Your task to perform on an android device: open app "Facebook Messenger" (install if not already installed) and enter user name: "divorce@inbox.com" and password: "caviar" Image 0: 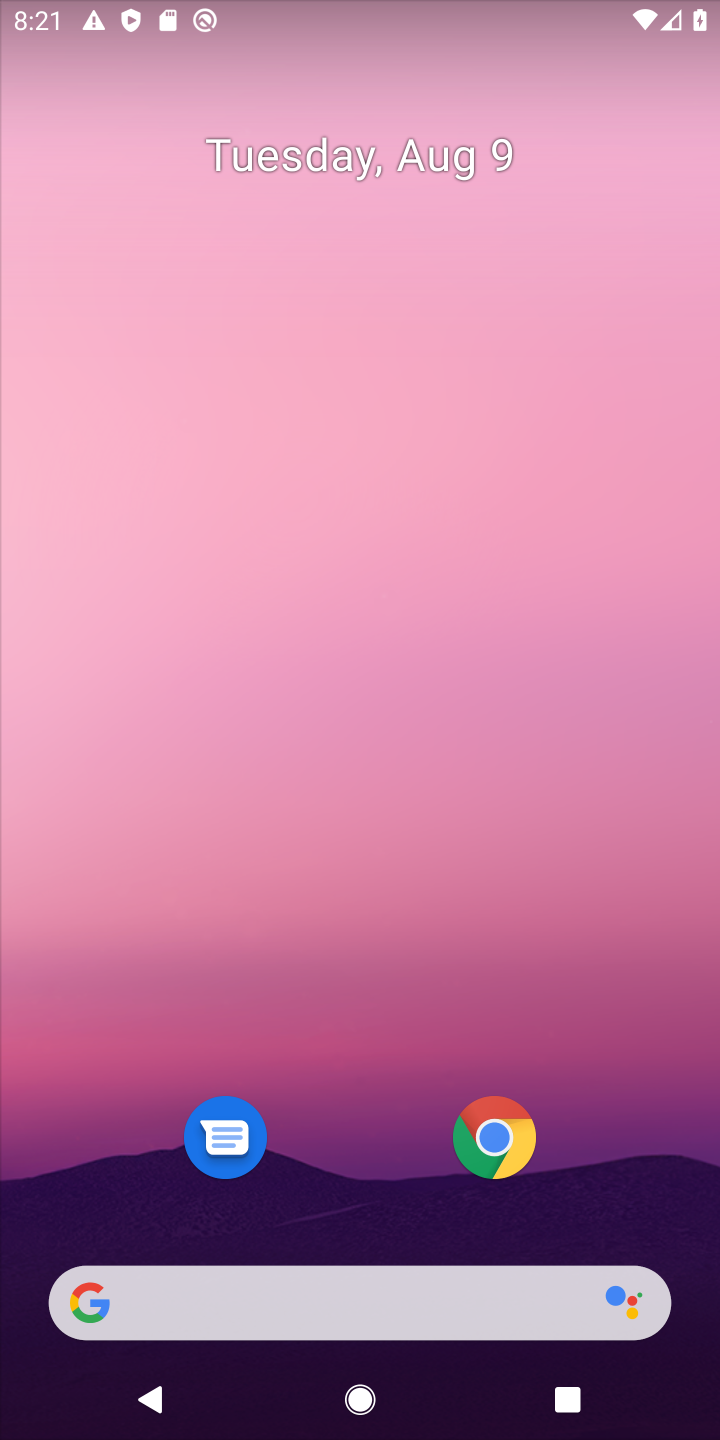
Step 0: drag from (587, 1198) to (588, 183)
Your task to perform on an android device: open app "Facebook Messenger" (install if not already installed) and enter user name: "divorce@inbox.com" and password: "caviar" Image 1: 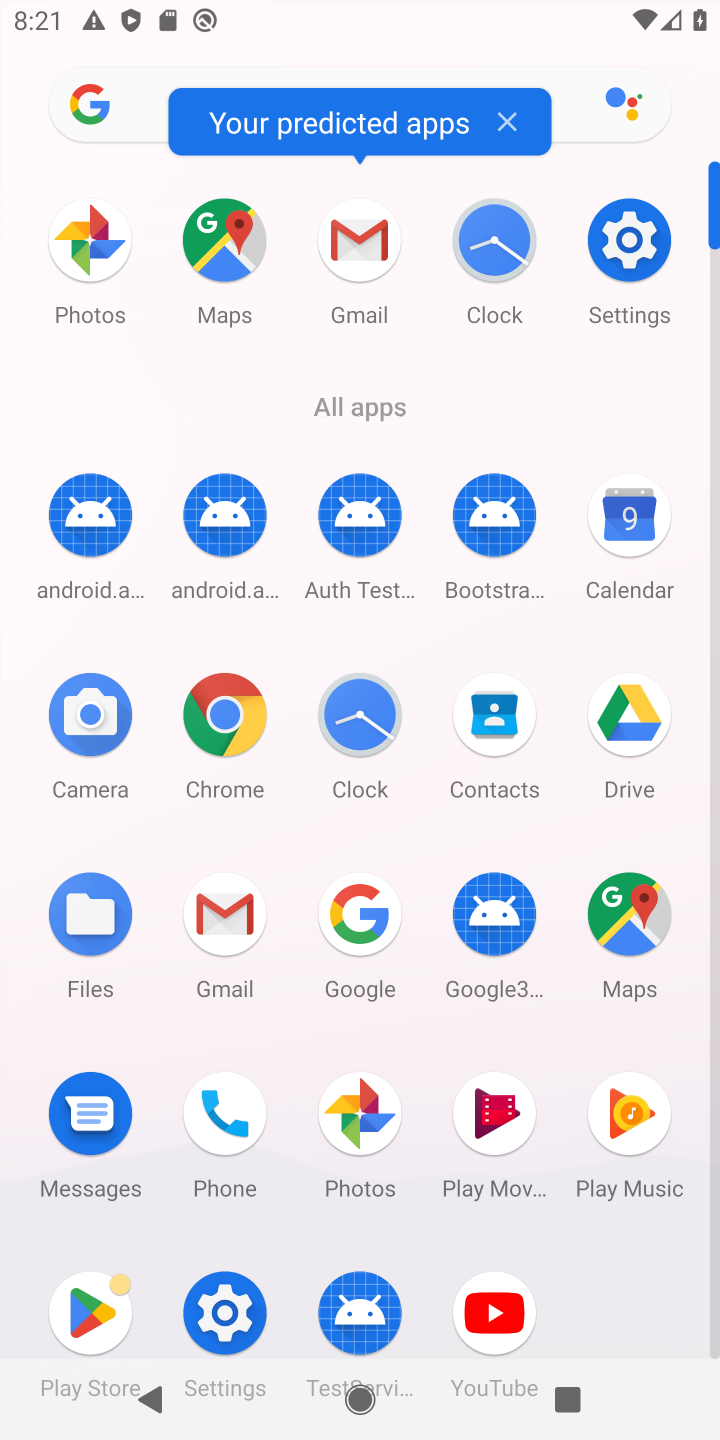
Step 1: drag from (573, 1234) to (583, 763)
Your task to perform on an android device: open app "Facebook Messenger" (install if not already installed) and enter user name: "divorce@inbox.com" and password: "caviar" Image 2: 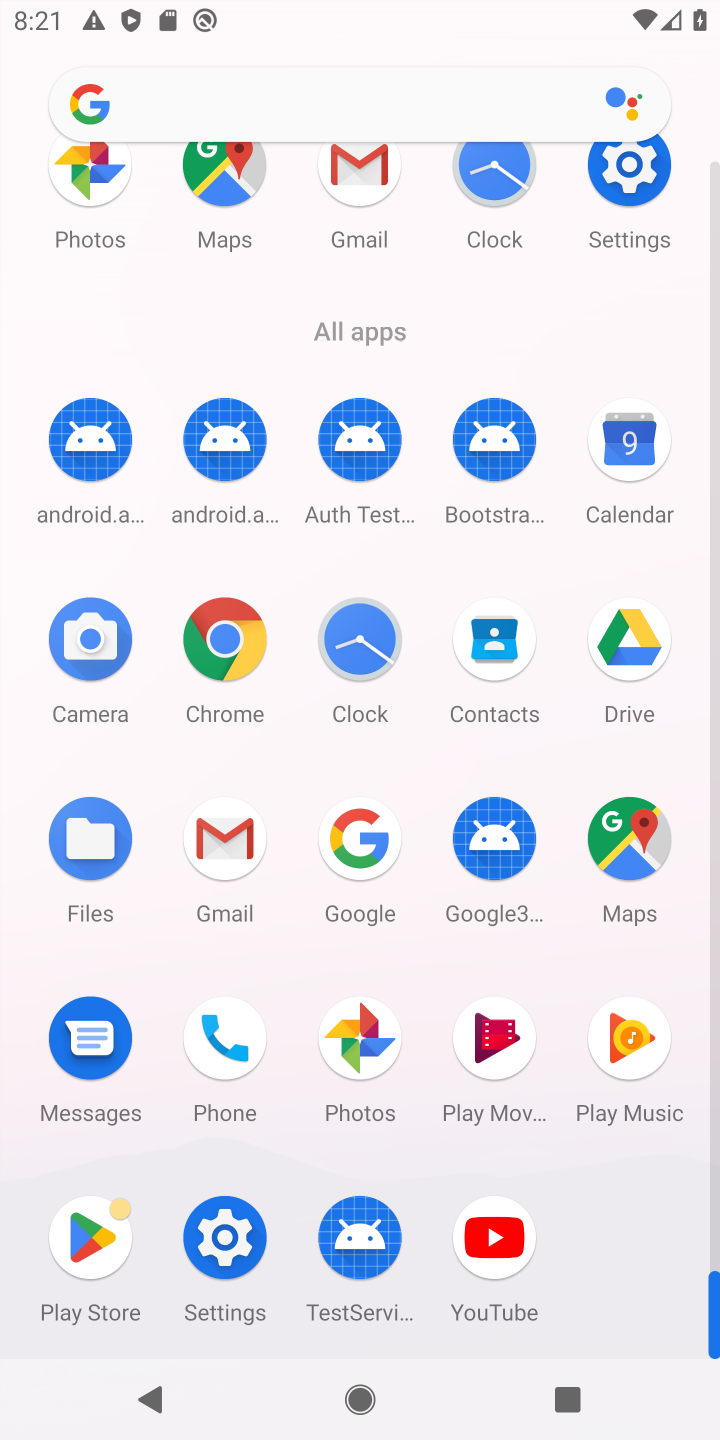
Step 2: click (84, 1247)
Your task to perform on an android device: open app "Facebook Messenger" (install if not already installed) and enter user name: "divorce@inbox.com" and password: "caviar" Image 3: 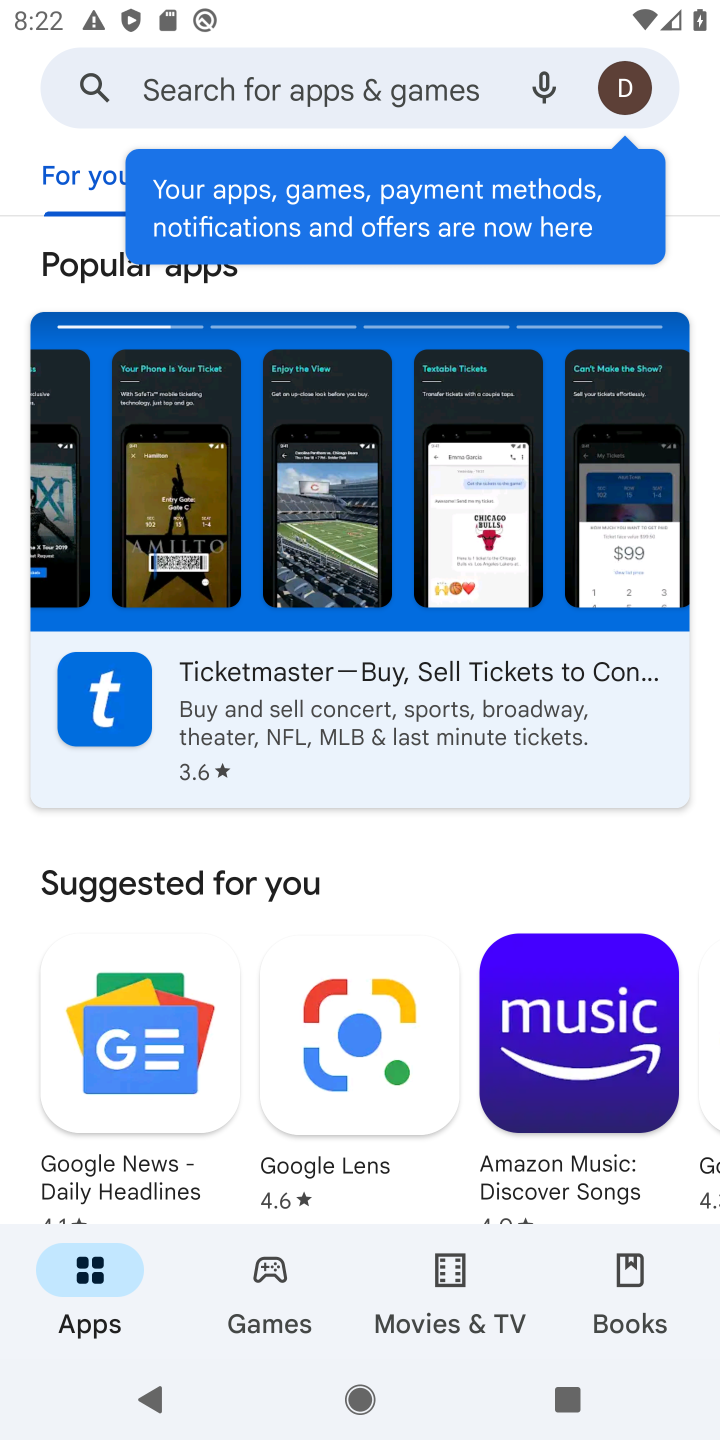
Step 3: click (294, 100)
Your task to perform on an android device: open app "Facebook Messenger" (install if not already installed) and enter user name: "divorce@inbox.com" and password: "caviar" Image 4: 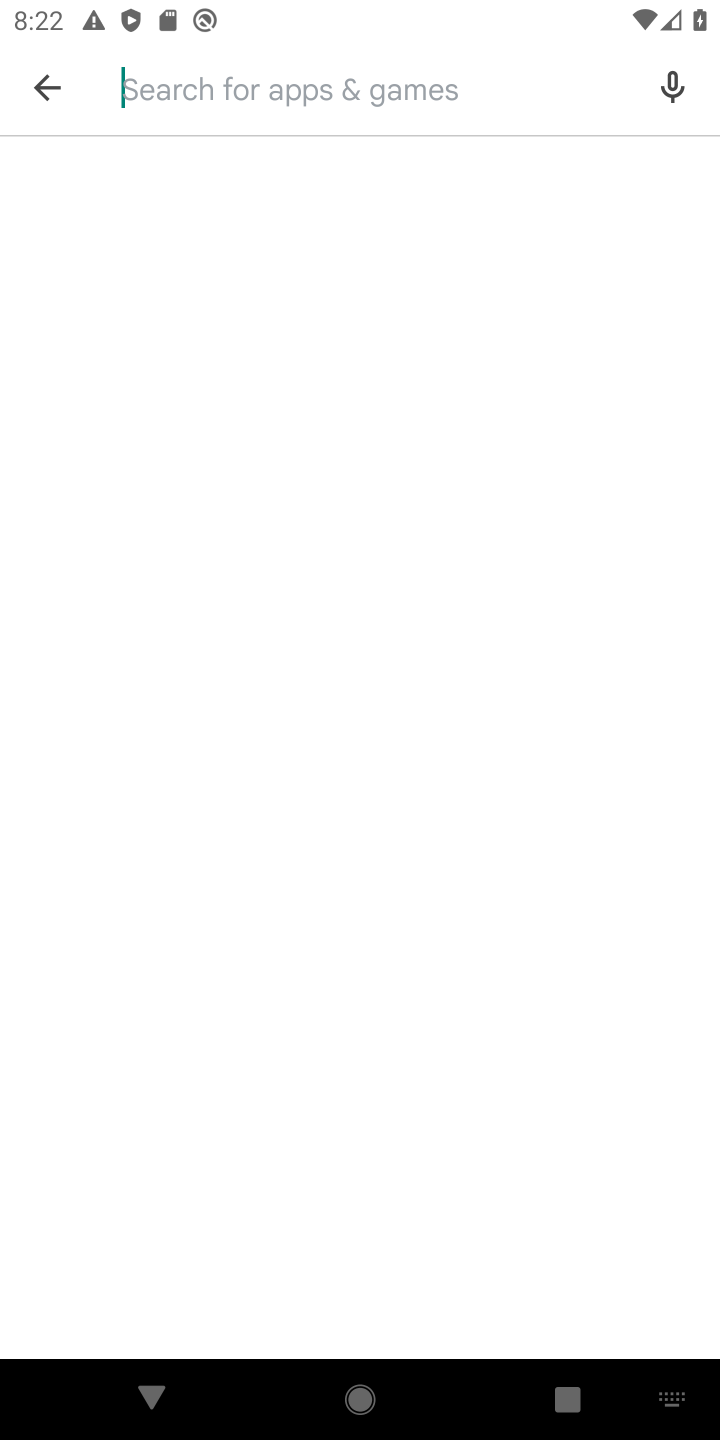
Step 4: type "facebook"
Your task to perform on an android device: open app "Facebook Messenger" (install if not already installed) and enter user name: "divorce@inbox.com" and password: "caviar" Image 5: 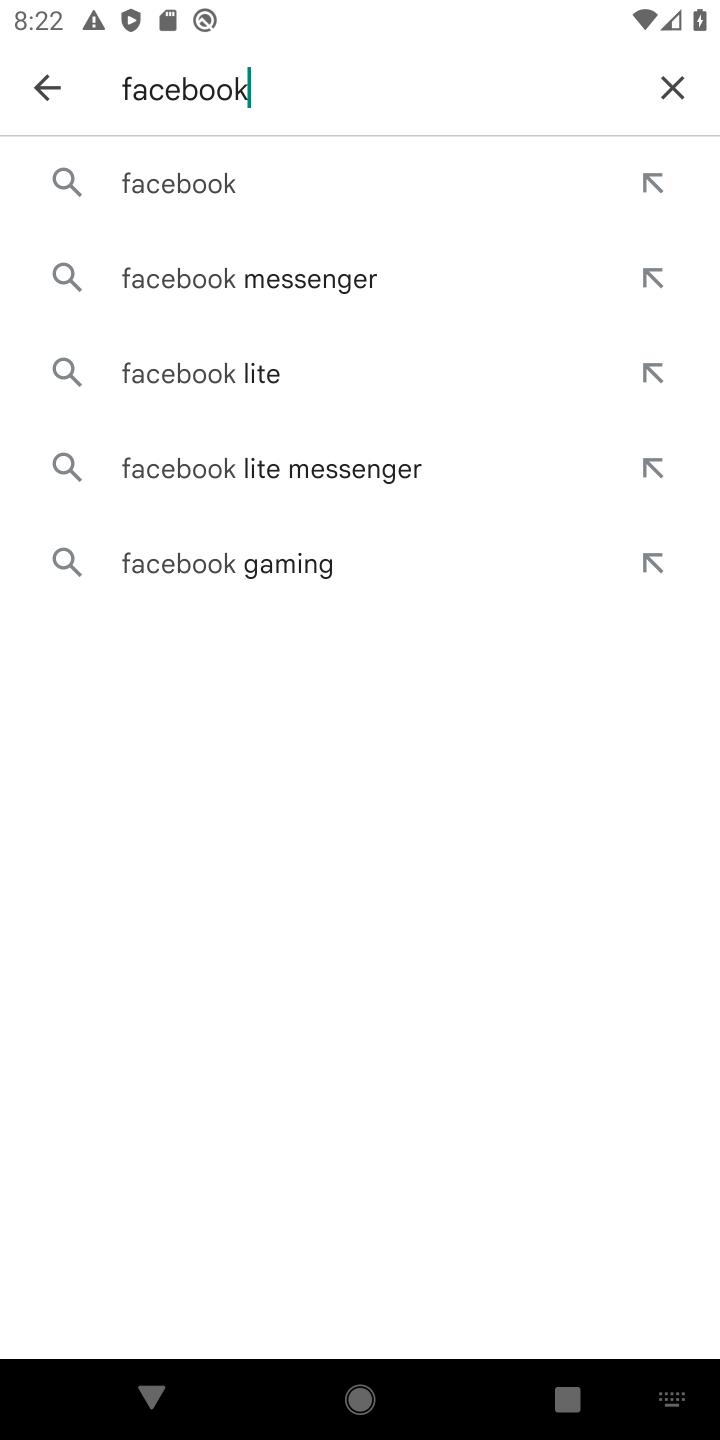
Step 5: click (351, 274)
Your task to perform on an android device: open app "Facebook Messenger" (install if not already installed) and enter user name: "divorce@inbox.com" and password: "caviar" Image 6: 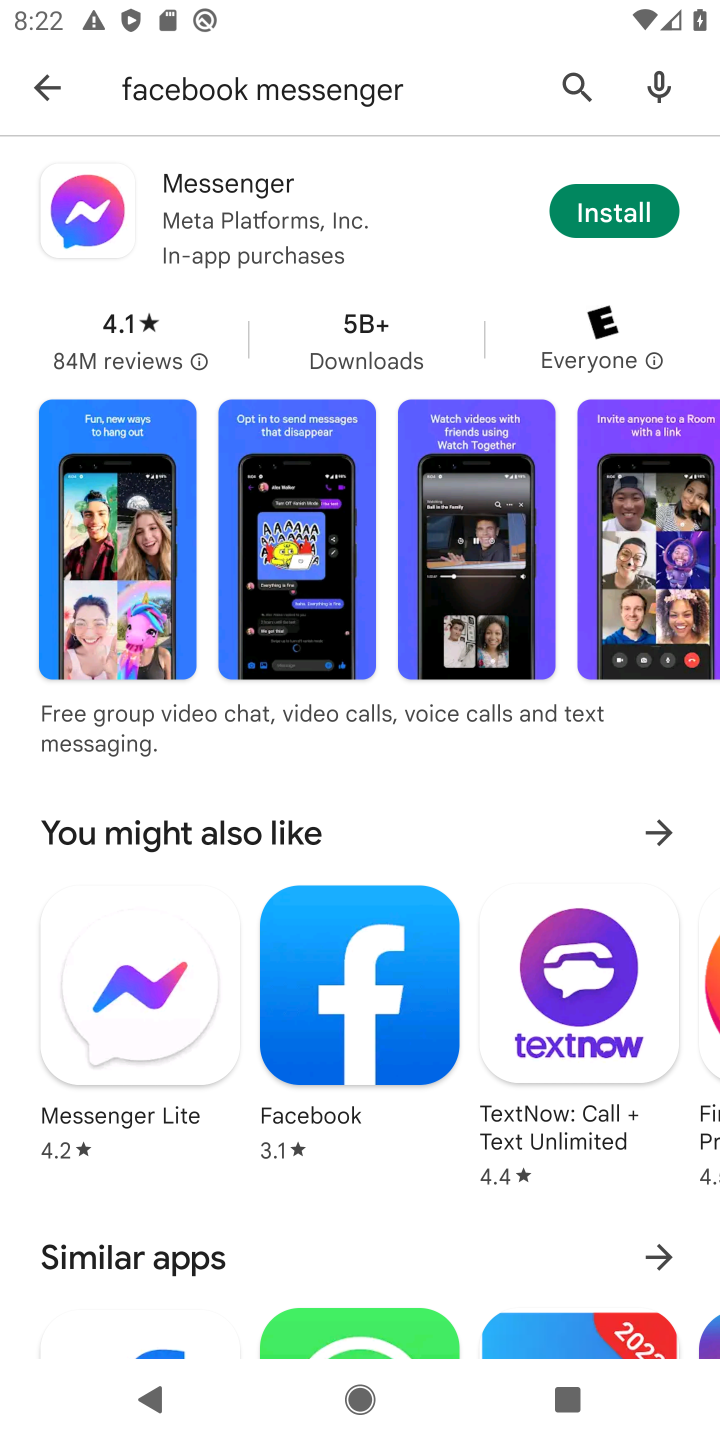
Step 6: click (631, 201)
Your task to perform on an android device: open app "Facebook Messenger" (install if not already installed) and enter user name: "divorce@inbox.com" and password: "caviar" Image 7: 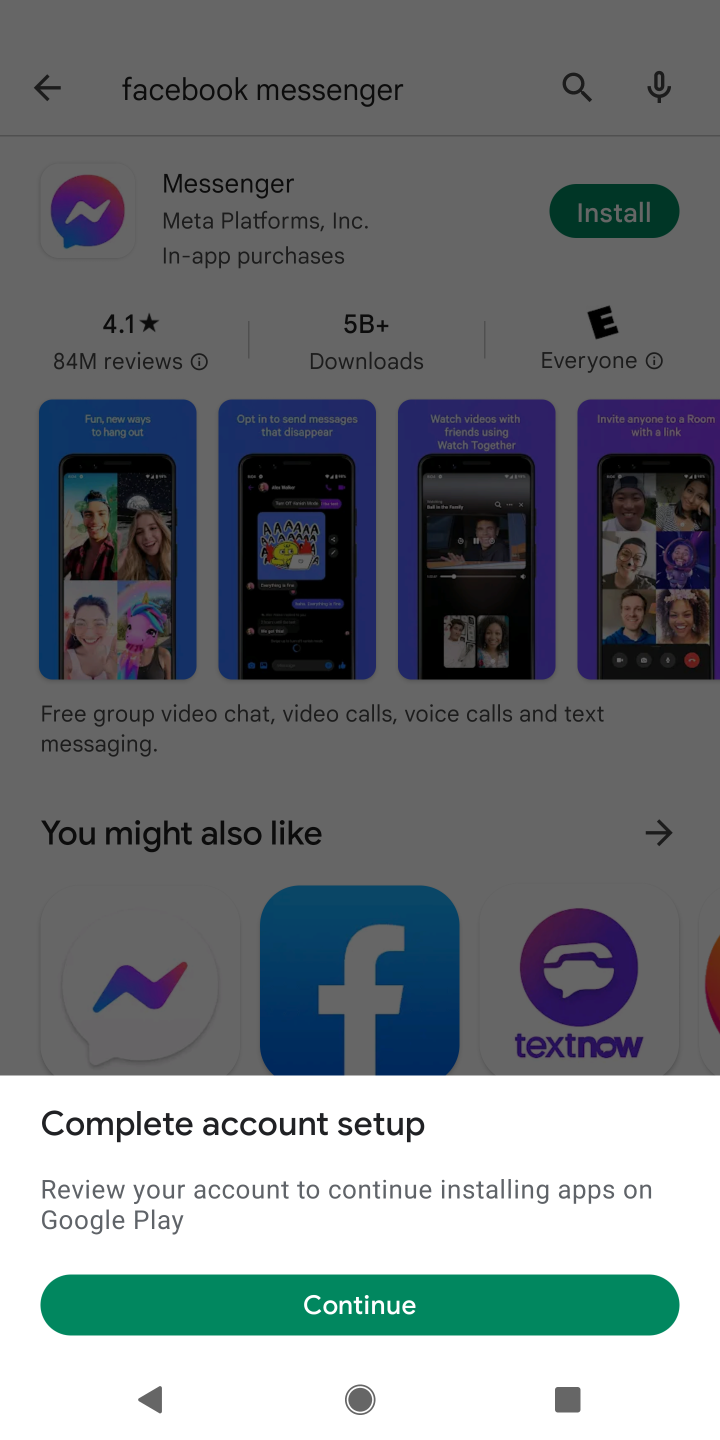
Step 7: click (571, 1294)
Your task to perform on an android device: open app "Facebook Messenger" (install if not already installed) and enter user name: "divorce@inbox.com" and password: "caviar" Image 8: 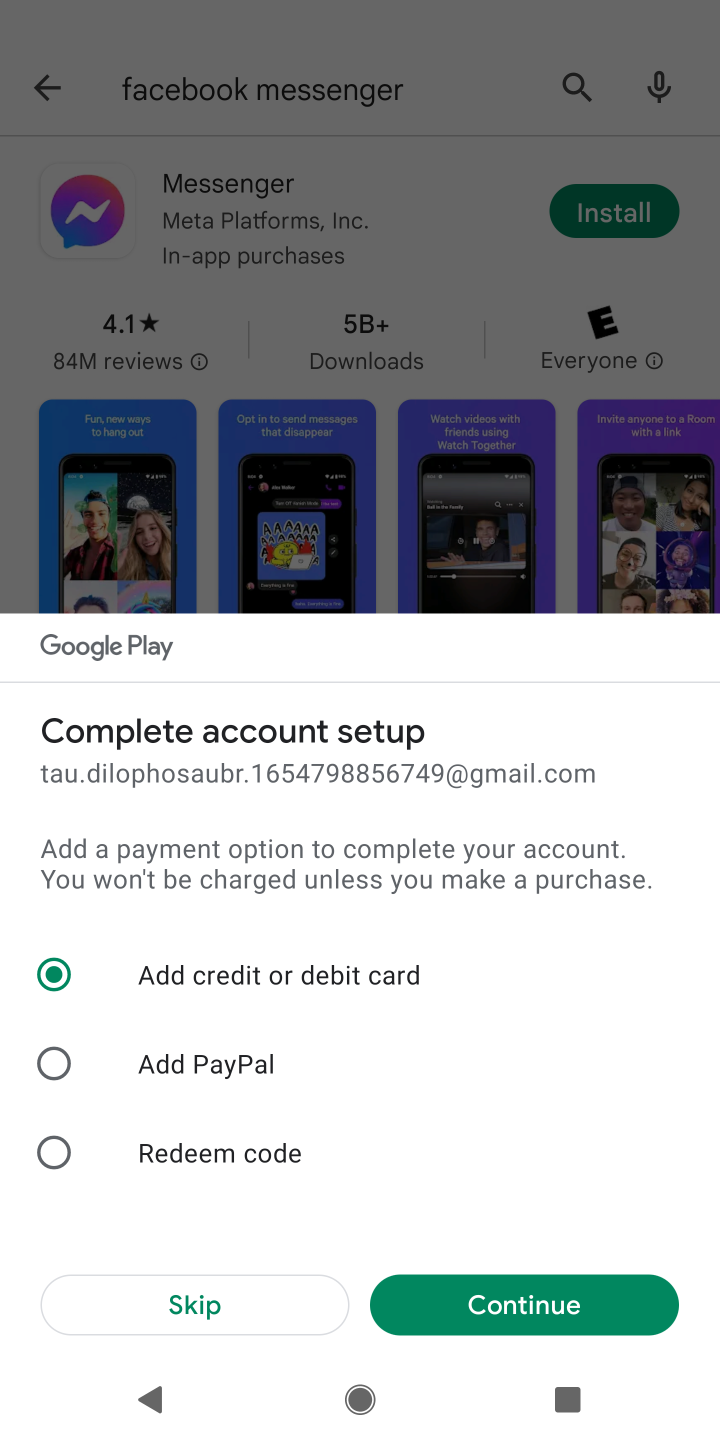
Step 8: click (190, 1299)
Your task to perform on an android device: open app "Facebook Messenger" (install if not already installed) and enter user name: "divorce@inbox.com" and password: "caviar" Image 9: 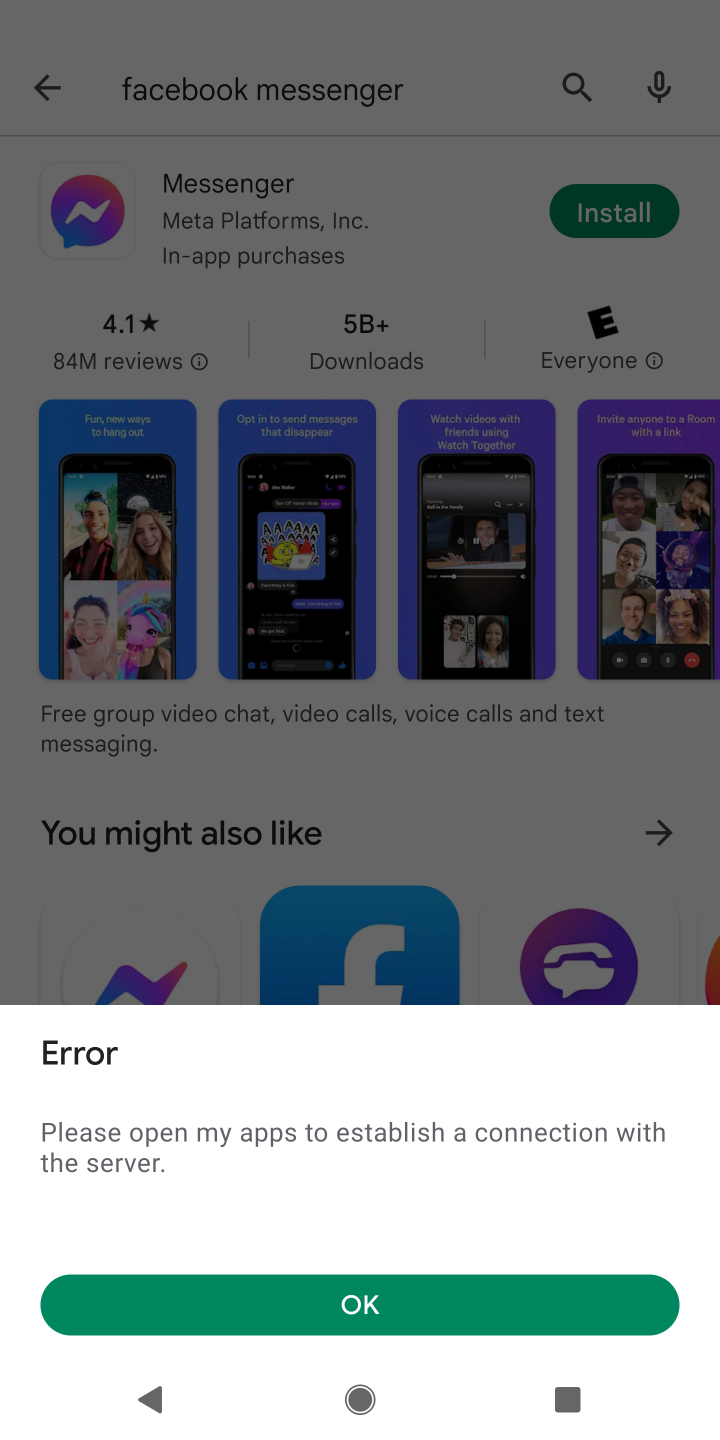
Step 9: task complete